Your task to perform on an android device: snooze an email in the gmail app Image 0: 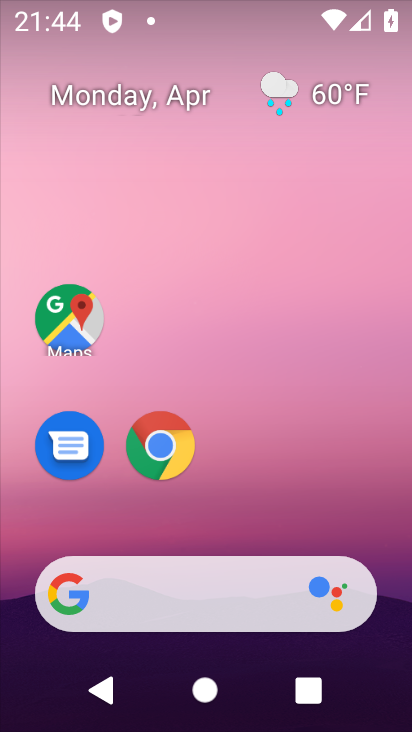
Step 0: drag from (311, 480) to (319, 62)
Your task to perform on an android device: snooze an email in the gmail app Image 1: 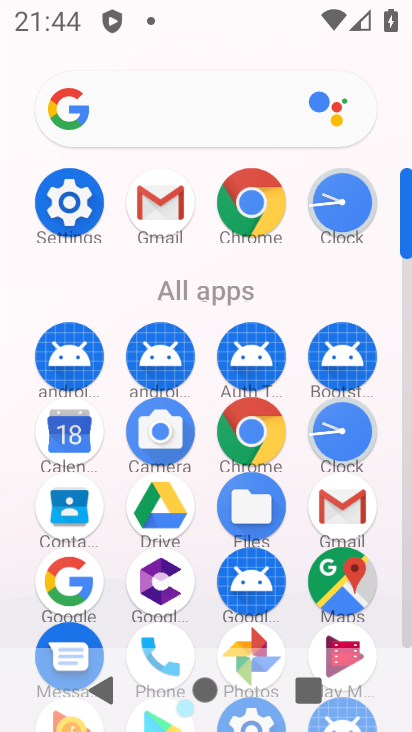
Step 1: click (174, 197)
Your task to perform on an android device: snooze an email in the gmail app Image 2: 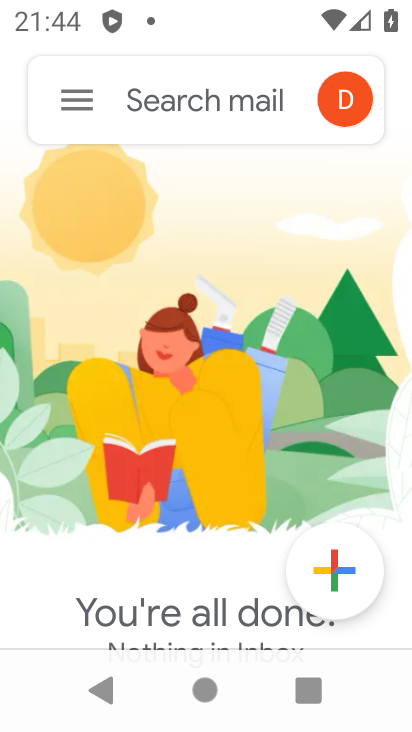
Step 2: click (83, 99)
Your task to perform on an android device: snooze an email in the gmail app Image 3: 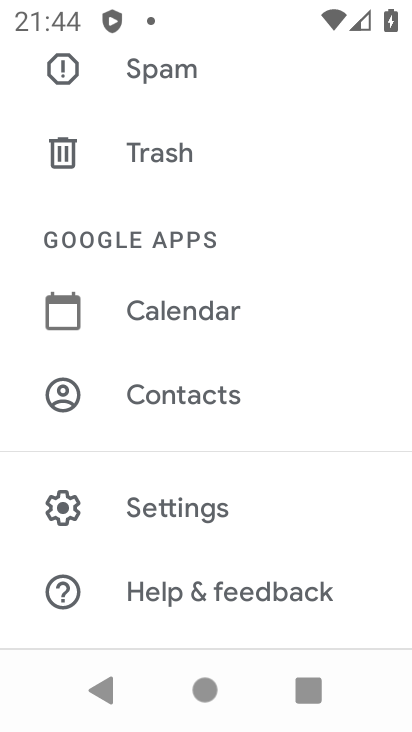
Step 3: drag from (266, 522) to (262, 103)
Your task to perform on an android device: snooze an email in the gmail app Image 4: 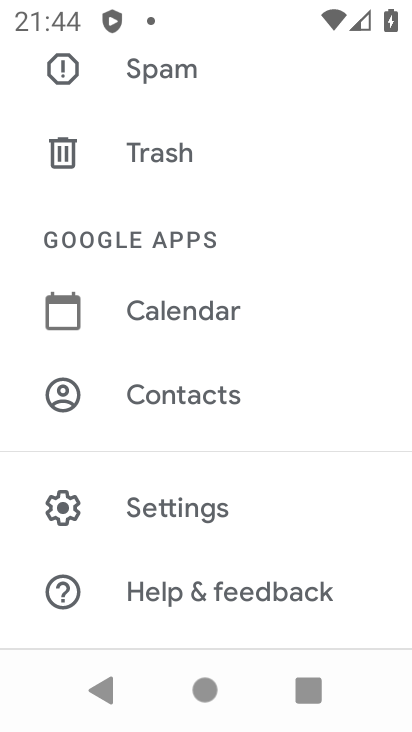
Step 4: drag from (245, 165) to (268, 566)
Your task to perform on an android device: snooze an email in the gmail app Image 5: 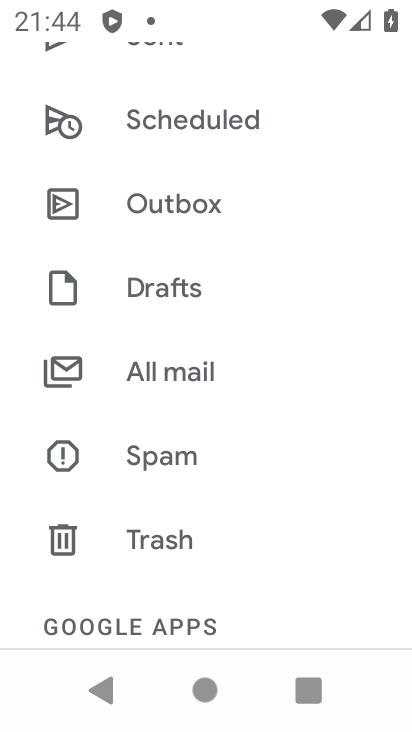
Step 5: click (194, 368)
Your task to perform on an android device: snooze an email in the gmail app Image 6: 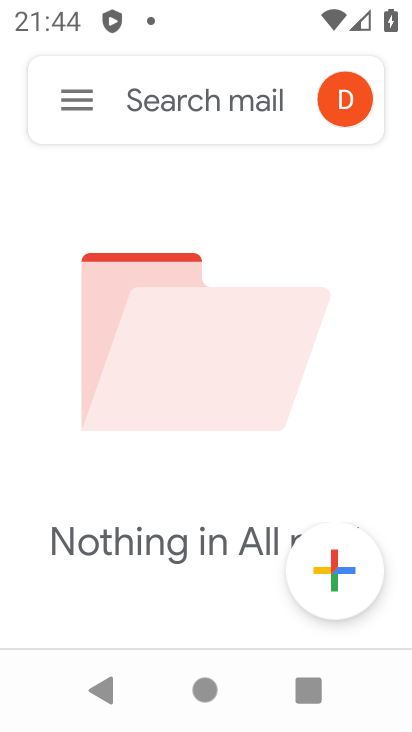
Step 6: task complete